Your task to perform on an android device: Show me popular games on the Play Store Image 0: 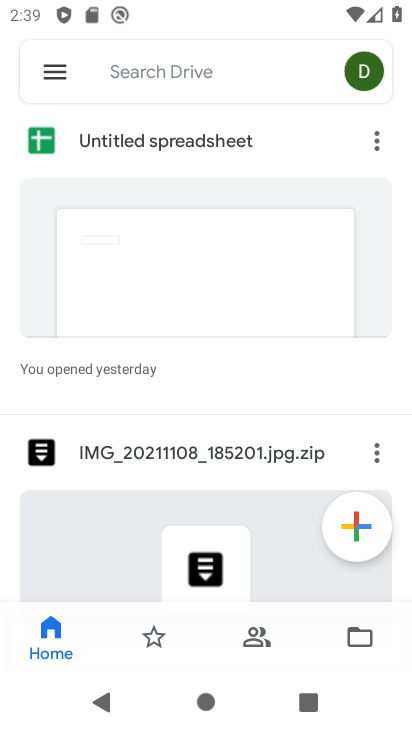
Step 0: press home button
Your task to perform on an android device: Show me popular games on the Play Store Image 1: 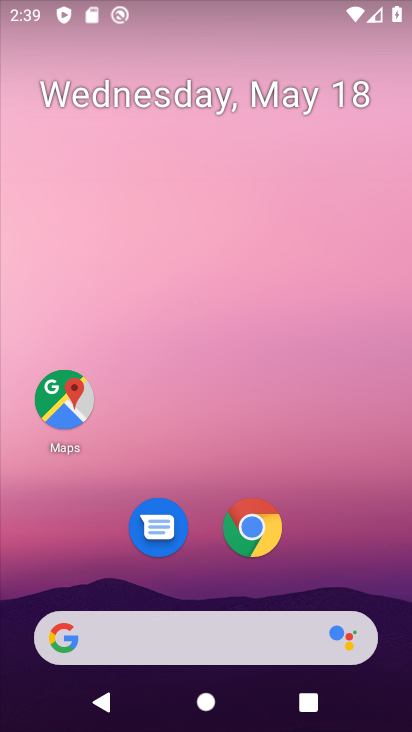
Step 1: drag from (212, 621) to (334, 724)
Your task to perform on an android device: Show me popular games on the Play Store Image 2: 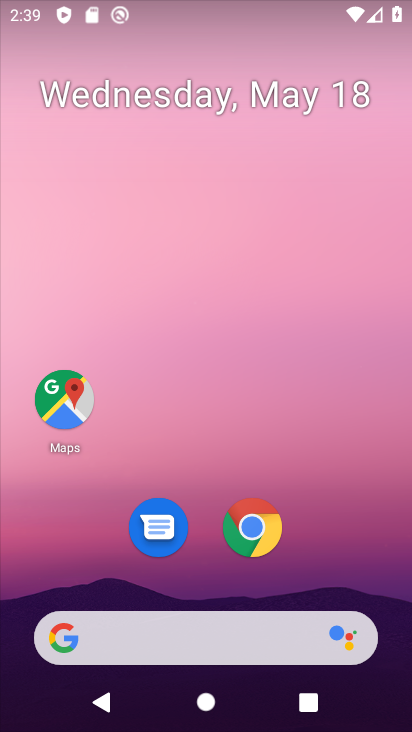
Step 2: drag from (248, 583) to (327, 20)
Your task to perform on an android device: Show me popular games on the Play Store Image 3: 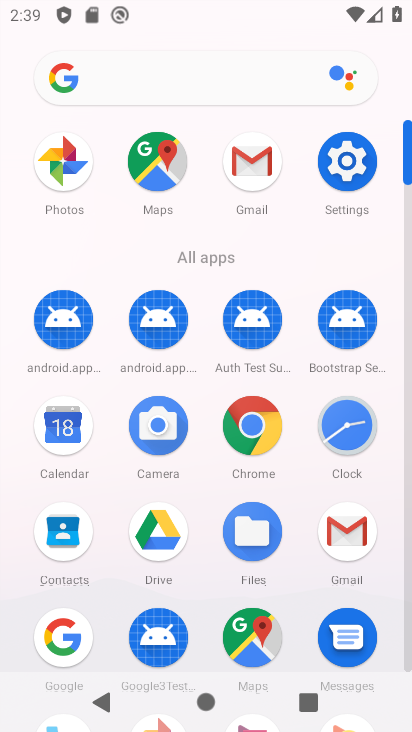
Step 3: drag from (219, 587) to (218, 69)
Your task to perform on an android device: Show me popular games on the Play Store Image 4: 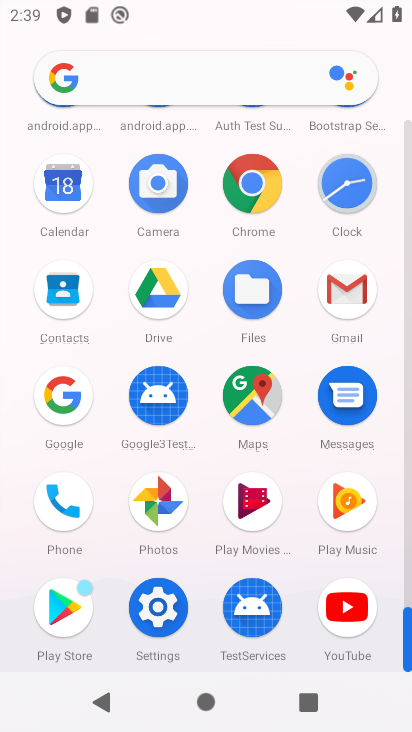
Step 4: click (53, 618)
Your task to perform on an android device: Show me popular games on the Play Store Image 5: 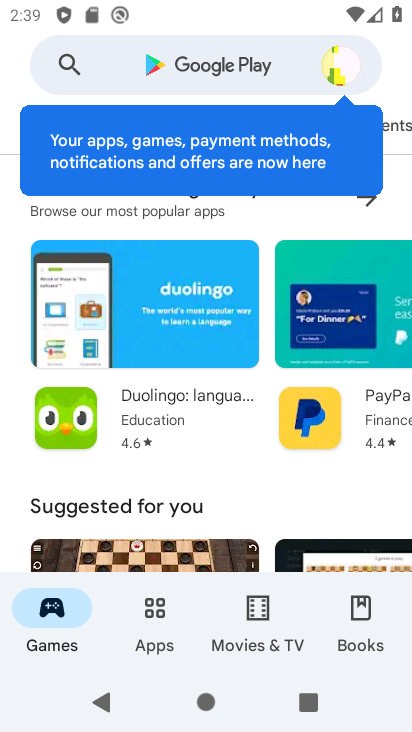
Step 5: click (156, 626)
Your task to perform on an android device: Show me popular games on the Play Store Image 6: 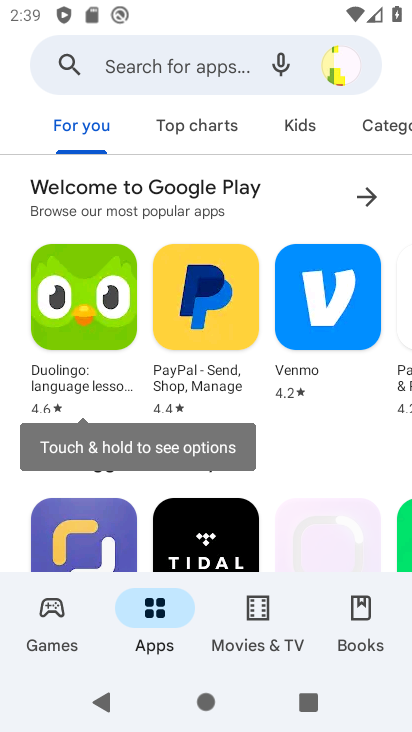
Step 6: click (62, 636)
Your task to perform on an android device: Show me popular games on the Play Store Image 7: 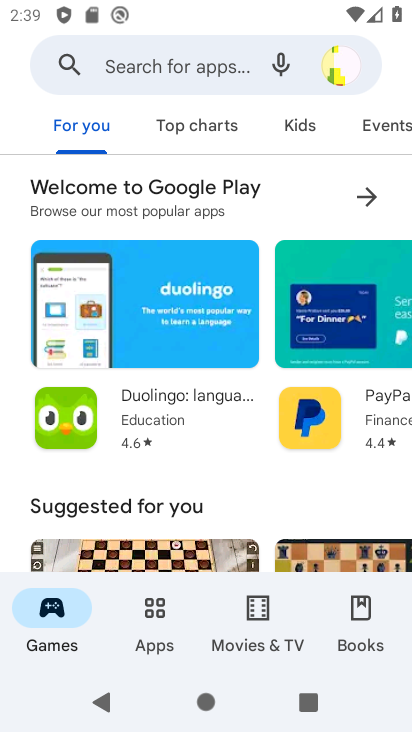
Step 7: click (52, 632)
Your task to perform on an android device: Show me popular games on the Play Store Image 8: 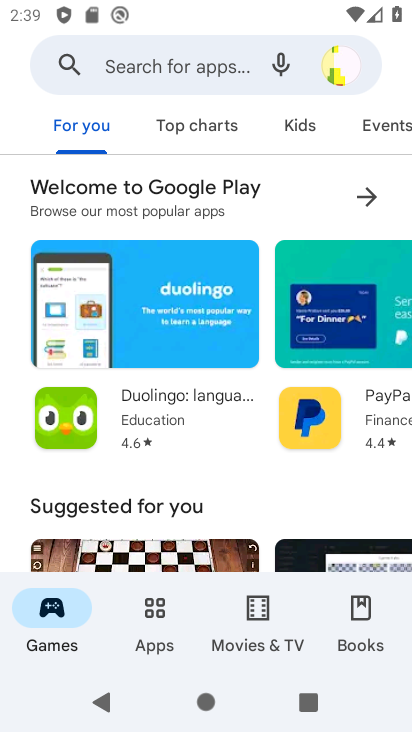
Step 8: drag from (170, 424) to (135, 152)
Your task to perform on an android device: Show me popular games on the Play Store Image 9: 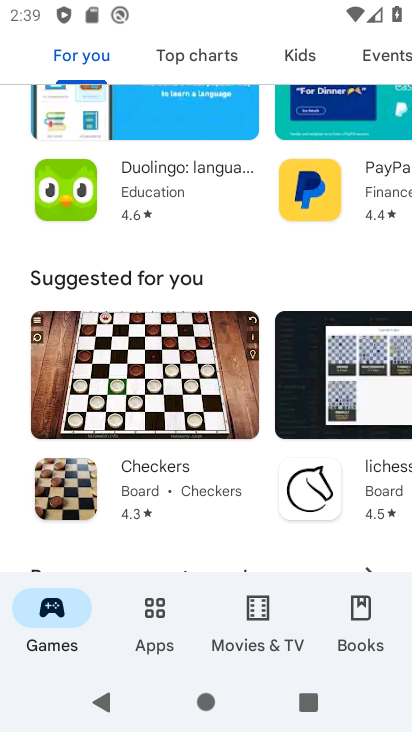
Step 9: drag from (258, 511) to (202, 154)
Your task to perform on an android device: Show me popular games on the Play Store Image 10: 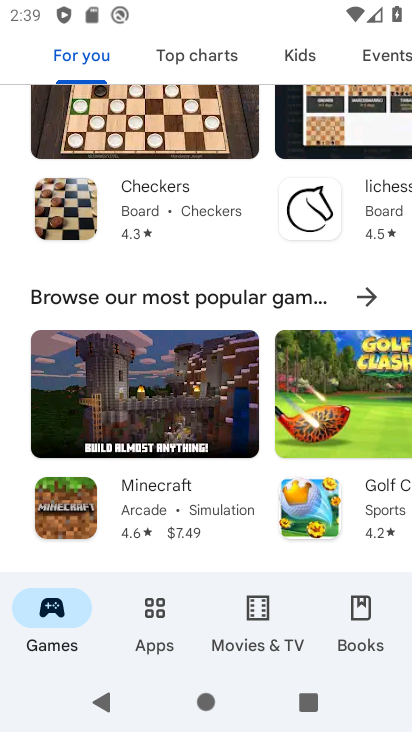
Step 10: click (377, 301)
Your task to perform on an android device: Show me popular games on the Play Store Image 11: 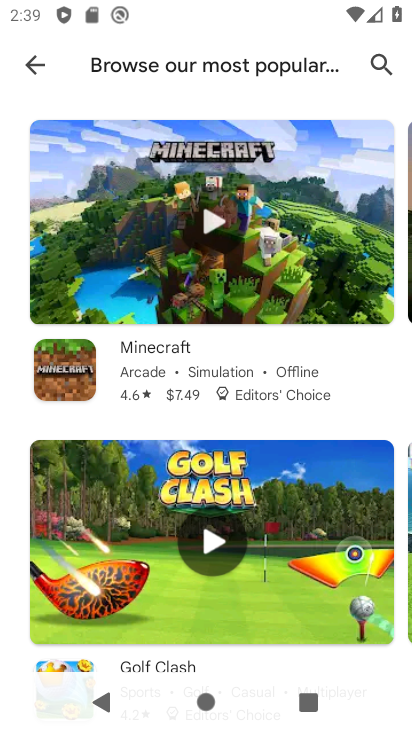
Step 11: task complete